Your task to perform on an android device: Go to settings Image 0: 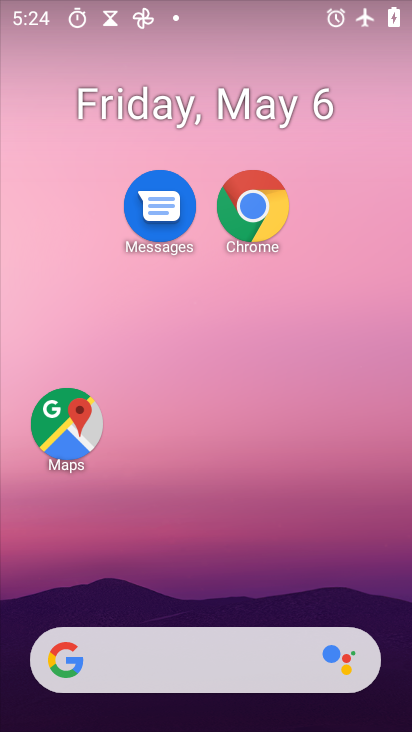
Step 0: drag from (159, 628) to (184, 349)
Your task to perform on an android device: Go to settings Image 1: 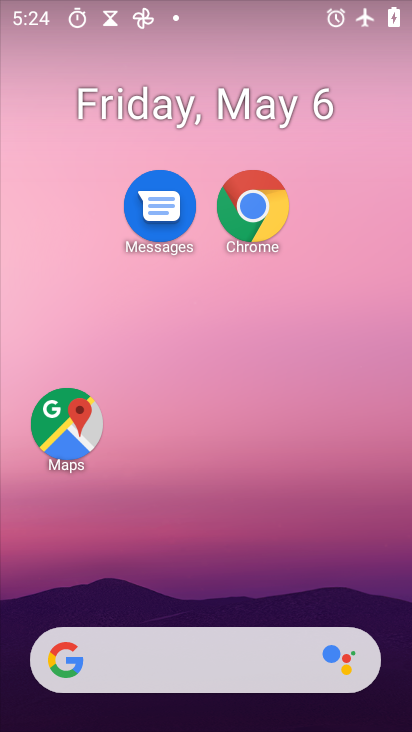
Step 1: drag from (265, 382) to (271, 332)
Your task to perform on an android device: Go to settings Image 2: 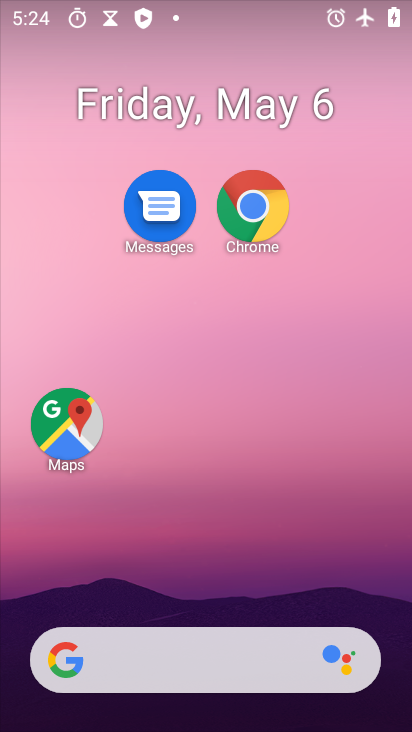
Step 2: drag from (212, 560) to (228, 187)
Your task to perform on an android device: Go to settings Image 3: 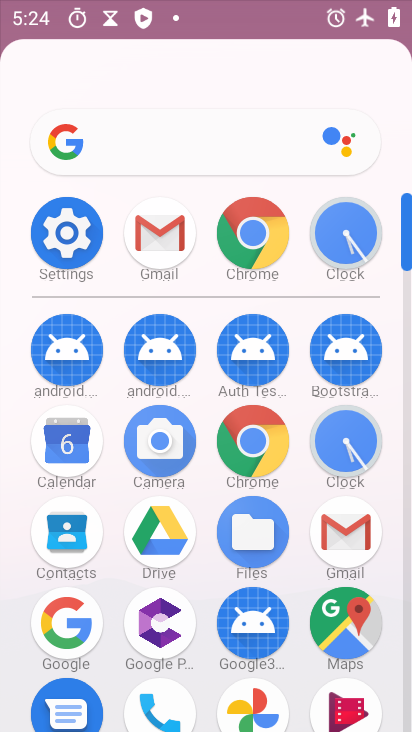
Step 3: drag from (168, 348) to (192, 180)
Your task to perform on an android device: Go to settings Image 4: 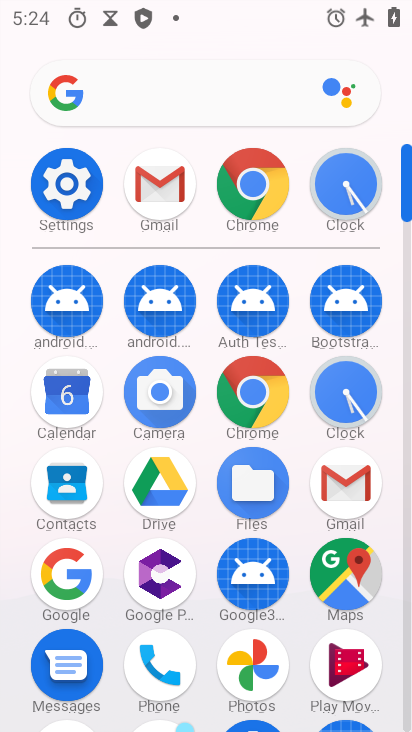
Step 4: drag from (201, 687) to (201, 380)
Your task to perform on an android device: Go to settings Image 5: 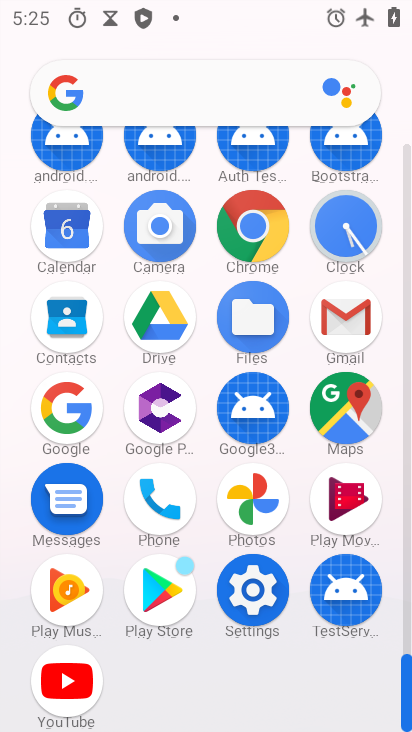
Step 5: click (252, 589)
Your task to perform on an android device: Go to settings Image 6: 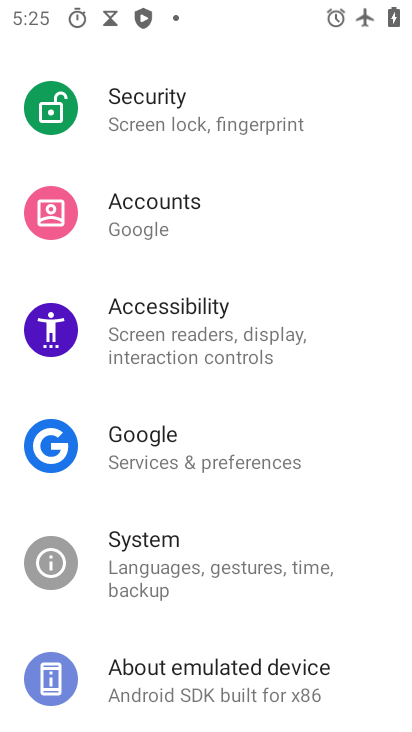
Step 6: task complete